Your task to perform on an android device: find photos in the google photos app Image 0: 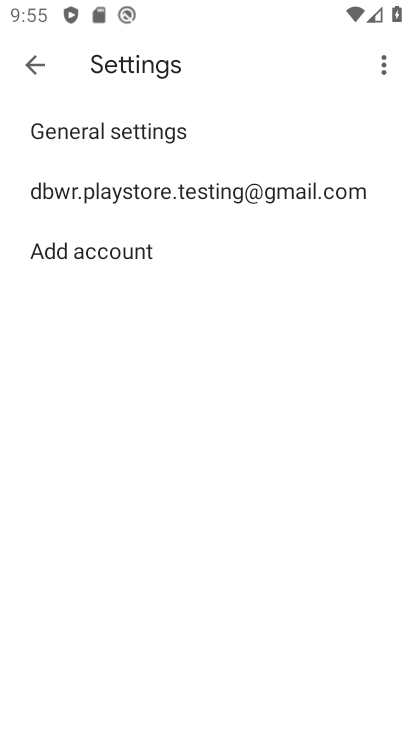
Step 0: press home button
Your task to perform on an android device: find photos in the google photos app Image 1: 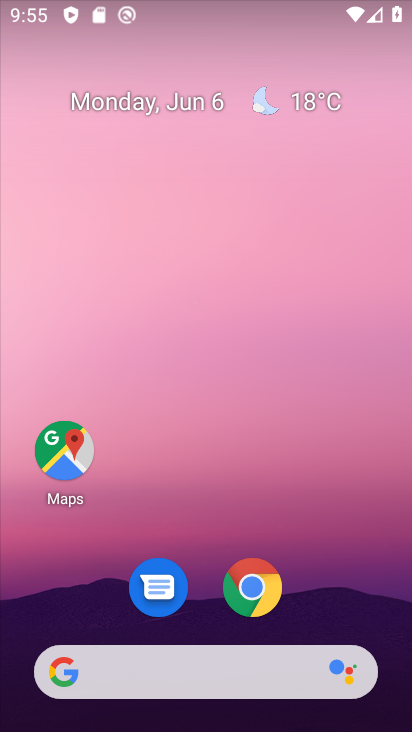
Step 1: drag from (158, 654) to (187, 305)
Your task to perform on an android device: find photos in the google photos app Image 2: 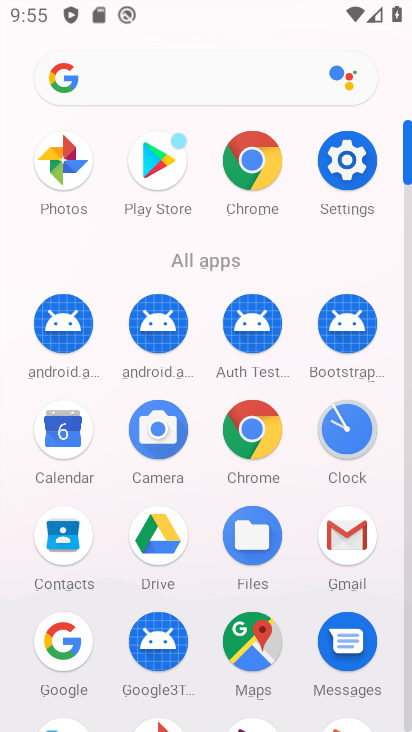
Step 2: drag from (206, 648) to (209, 302)
Your task to perform on an android device: find photos in the google photos app Image 3: 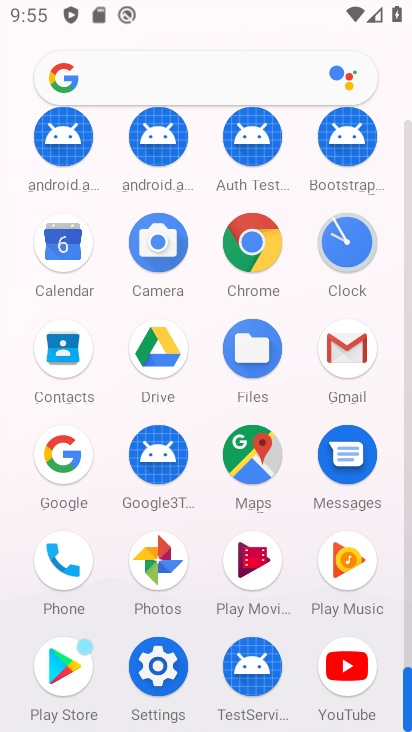
Step 3: click (157, 553)
Your task to perform on an android device: find photos in the google photos app Image 4: 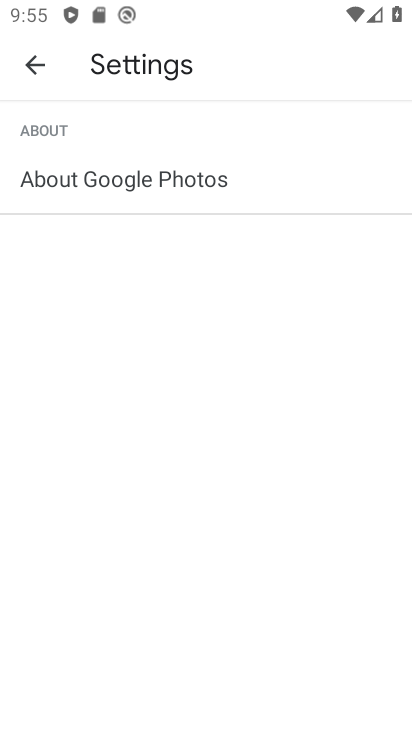
Step 4: click (31, 67)
Your task to perform on an android device: find photos in the google photos app Image 5: 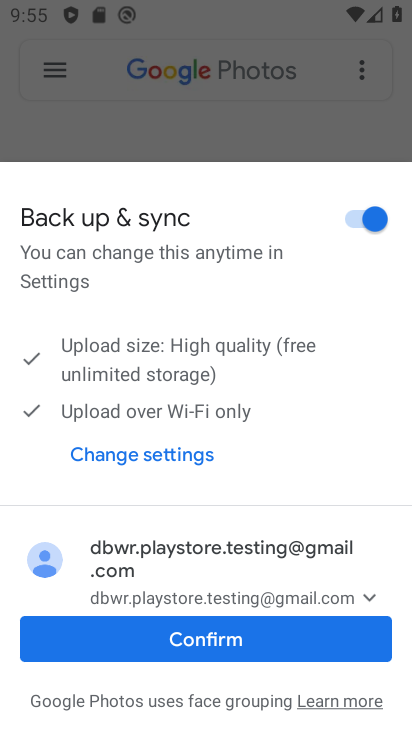
Step 5: click (203, 634)
Your task to perform on an android device: find photos in the google photos app Image 6: 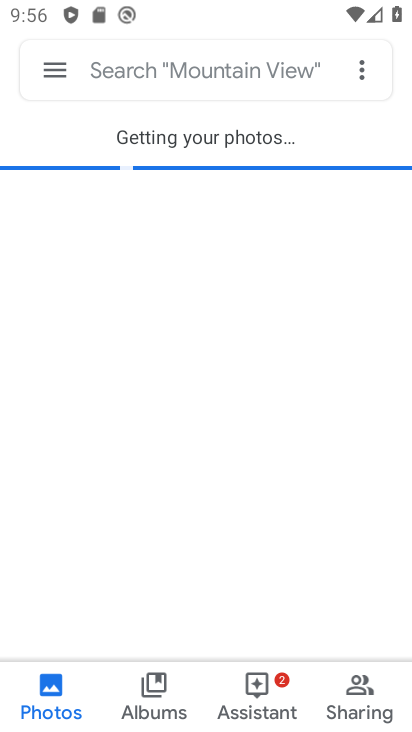
Step 6: click (152, 67)
Your task to perform on an android device: find photos in the google photos app Image 7: 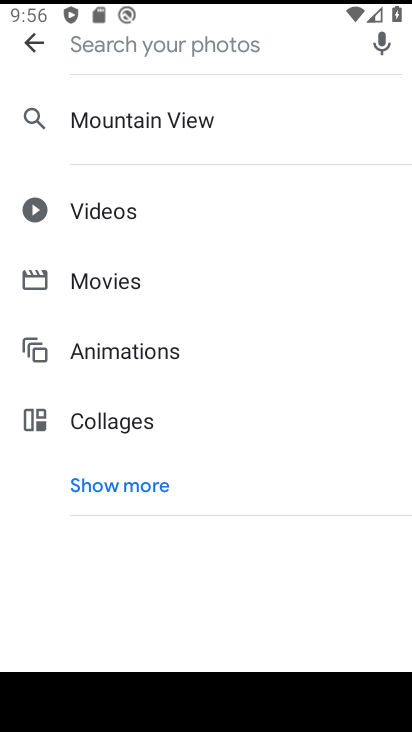
Step 7: click (142, 127)
Your task to perform on an android device: find photos in the google photos app Image 8: 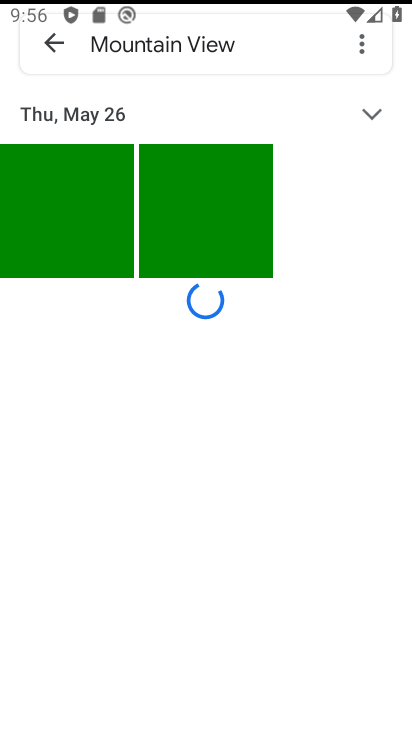
Step 8: click (60, 236)
Your task to perform on an android device: find photos in the google photos app Image 9: 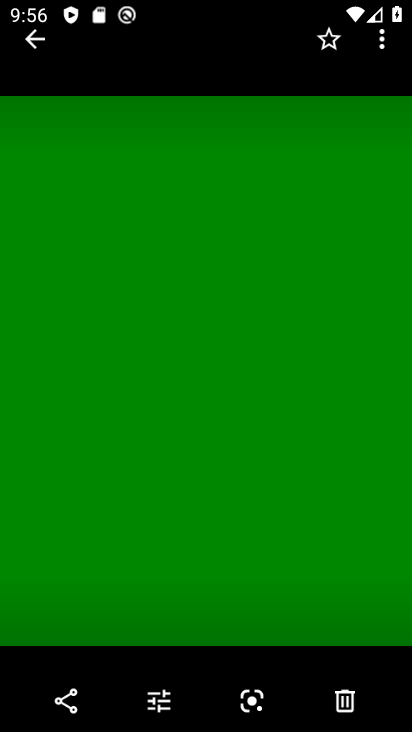
Step 9: task complete